Your task to perform on an android device: change the clock display to analog Image 0: 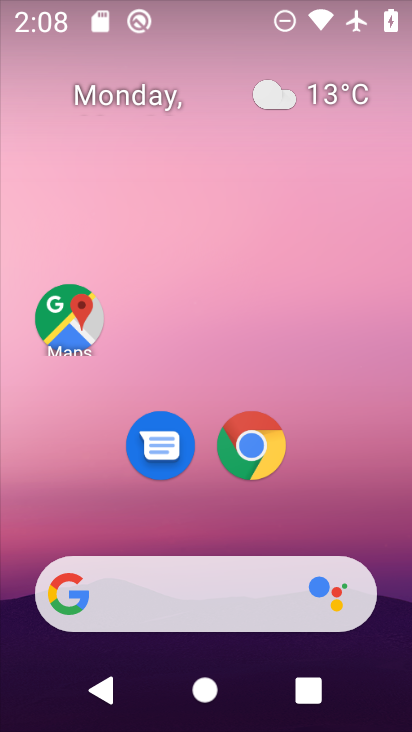
Step 0: drag from (403, 625) to (228, 3)
Your task to perform on an android device: change the clock display to analog Image 1: 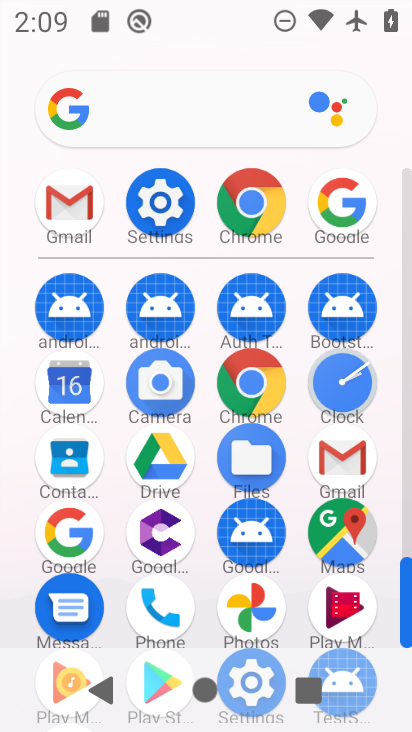
Step 1: click (333, 375)
Your task to perform on an android device: change the clock display to analog Image 2: 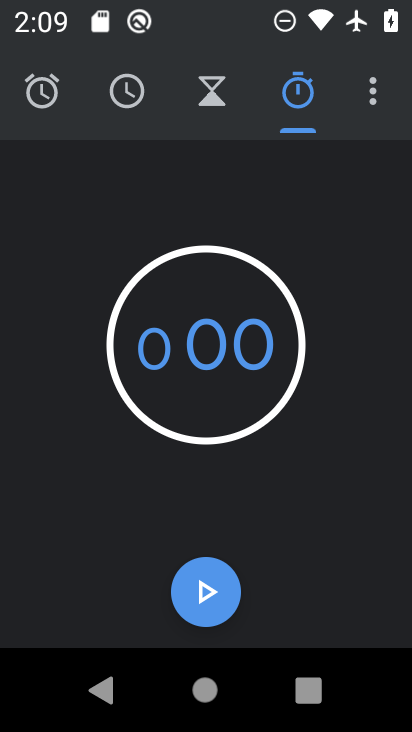
Step 2: click (379, 88)
Your task to perform on an android device: change the clock display to analog Image 3: 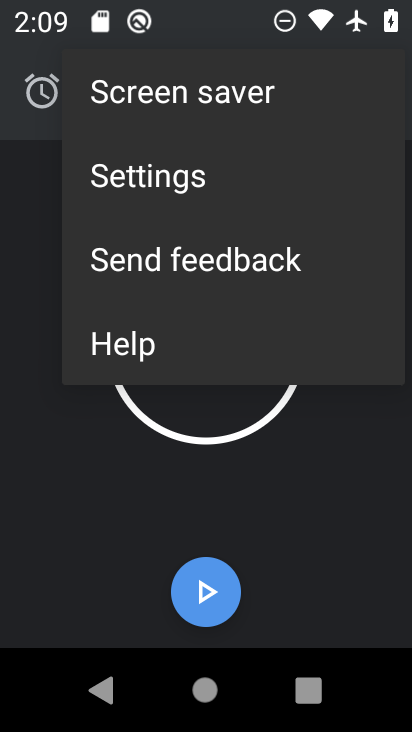
Step 3: click (262, 170)
Your task to perform on an android device: change the clock display to analog Image 4: 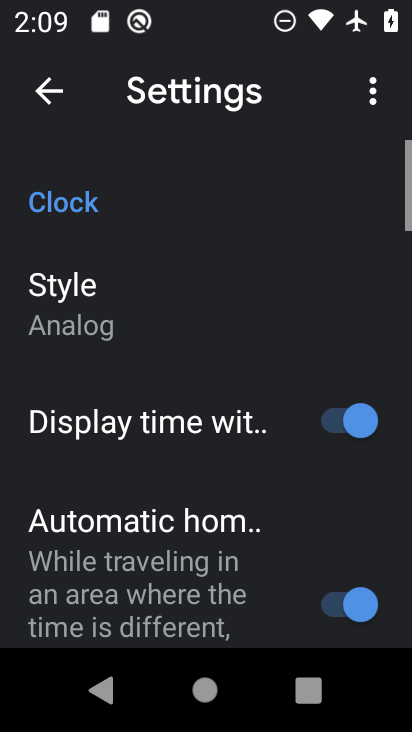
Step 4: click (149, 306)
Your task to perform on an android device: change the clock display to analog Image 5: 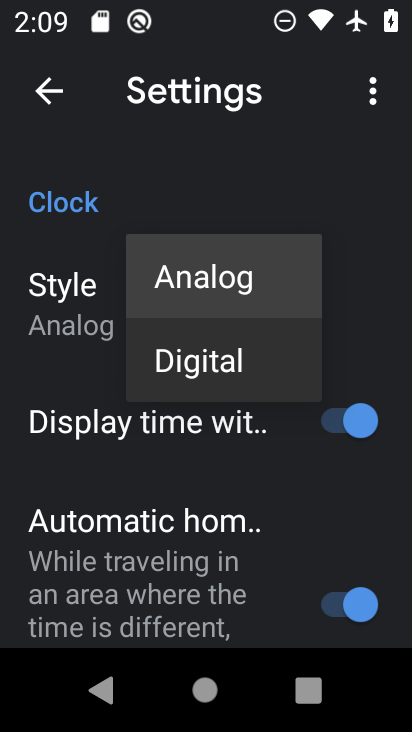
Step 5: task complete